Your task to perform on an android device: toggle sleep mode Image 0: 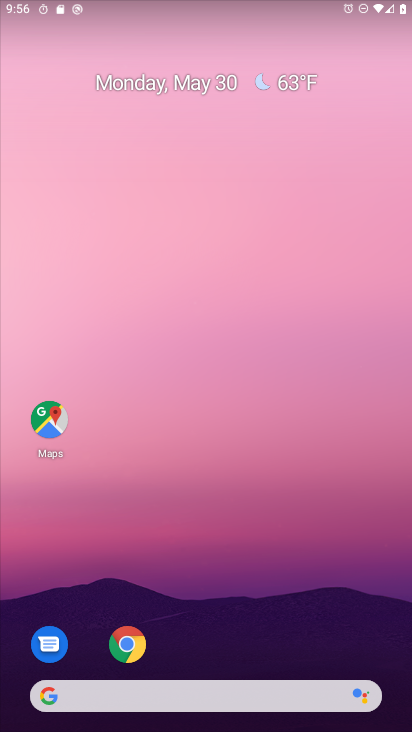
Step 0: drag from (209, 589) to (228, 49)
Your task to perform on an android device: toggle sleep mode Image 1: 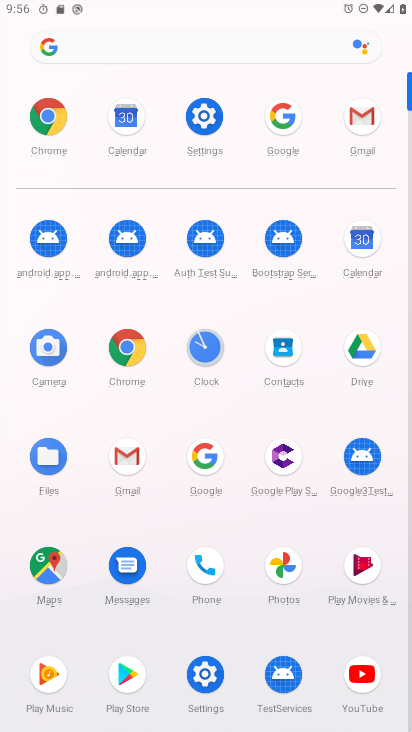
Step 1: click (197, 115)
Your task to perform on an android device: toggle sleep mode Image 2: 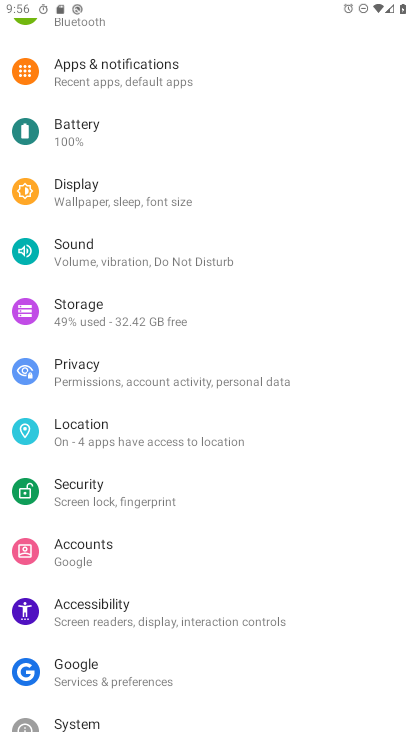
Step 2: click (121, 193)
Your task to perform on an android device: toggle sleep mode Image 3: 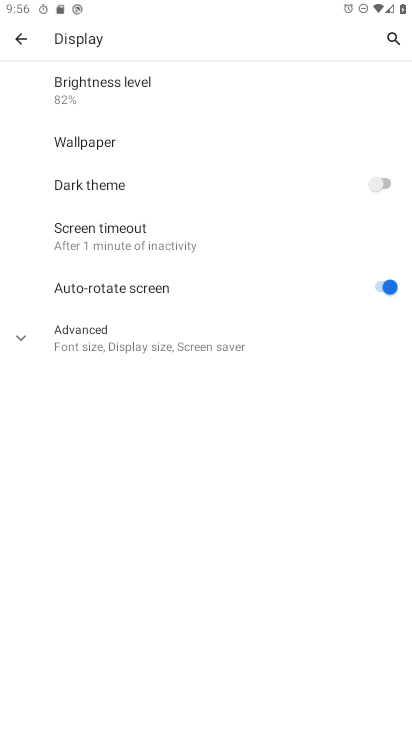
Step 3: click (155, 238)
Your task to perform on an android device: toggle sleep mode Image 4: 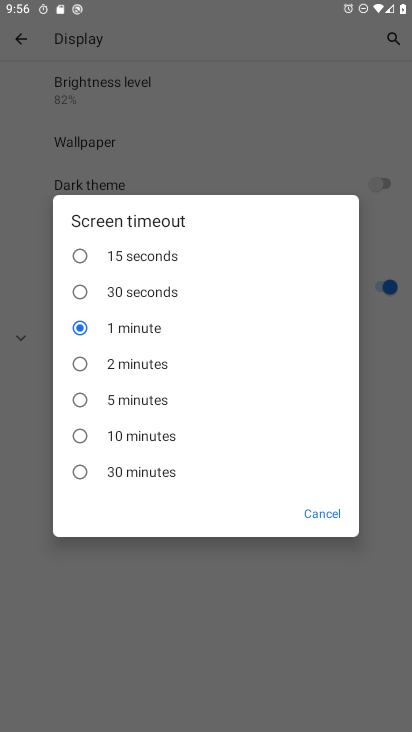
Step 4: click (75, 256)
Your task to perform on an android device: toggle sleep mode Image 5: 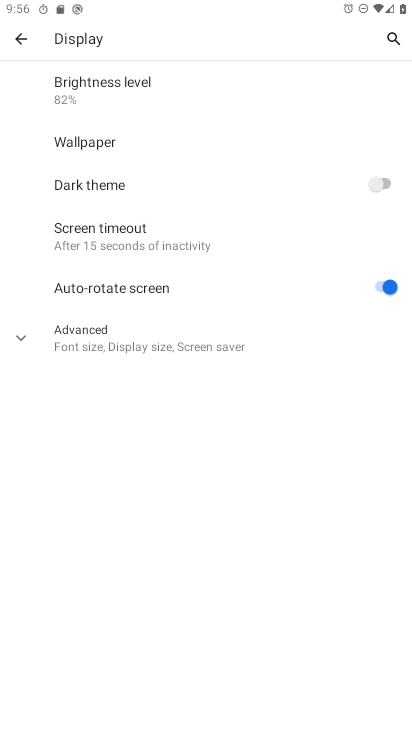
Step 5: task complete